Your task to perform on an android device: Open the calendar app, open the side menu, and click the "Day" option Image 0: 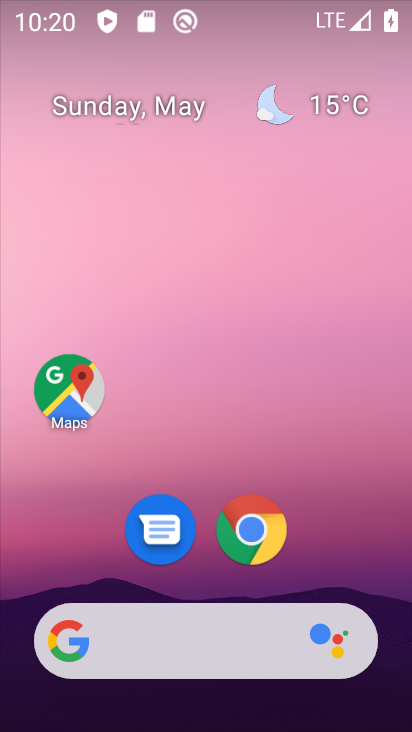
Step 0: drag from (306, 648) to (250, 82)
Your task to perform on an android device: Open the calendar app, open the side menu, and click the "Day" option Image 1: 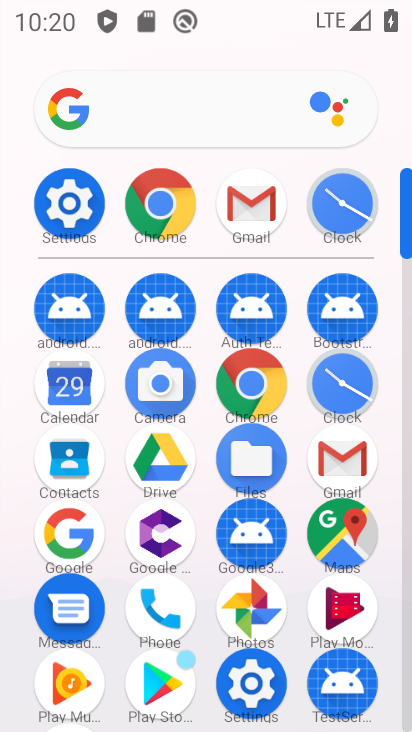
Step 1: click (80, 399)
Your task to perform on an android device: Open the calendar app, open the side menu, and click the "Day" option Image 2: 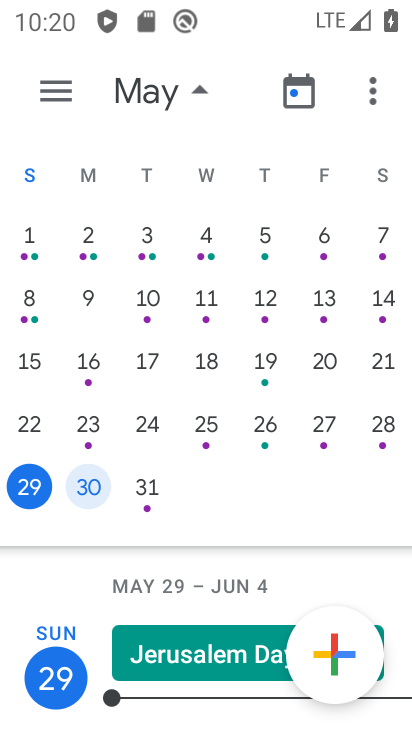
Step 2: click (48, 79)
Your task to perform on an android device: Open the calendar app, open the side menu, and click the "Day" option Image 3: 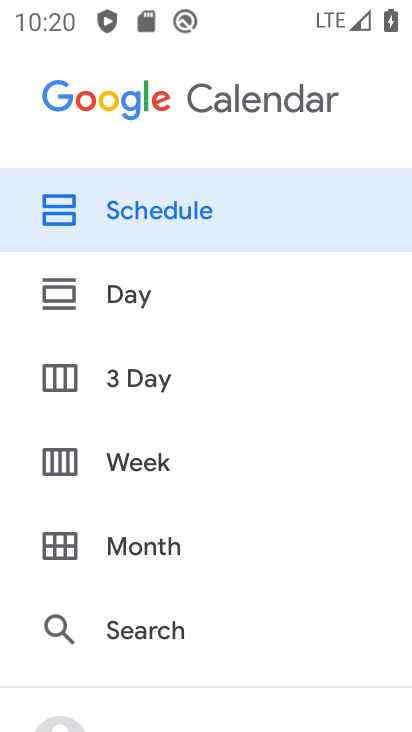
Step 3: click (156, 284)
Your task to perform on an android device: Open the calendar app, open the side menu, and click the "Day" option Image 4: 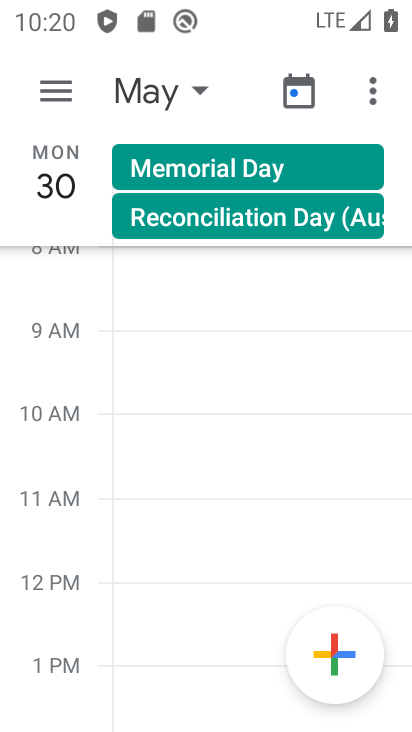
Step 4: task complete